Your task to perform on an android device: Open location settings Image 0: 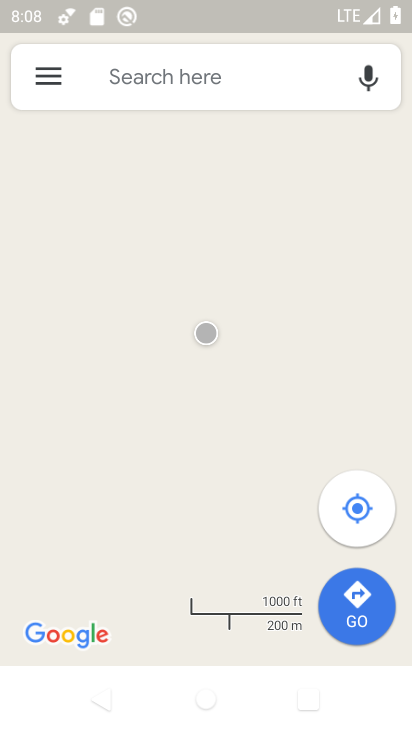
Step 0: press home button
Your task to perform on an android device: Open location settings Image 1: 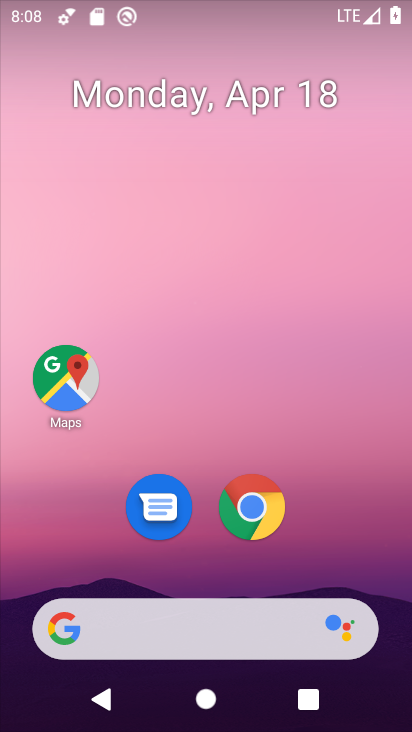
Step 1: drag from (15, 533) to (249, 83)
Your task to perform on an android device: Open location settings Image 2: 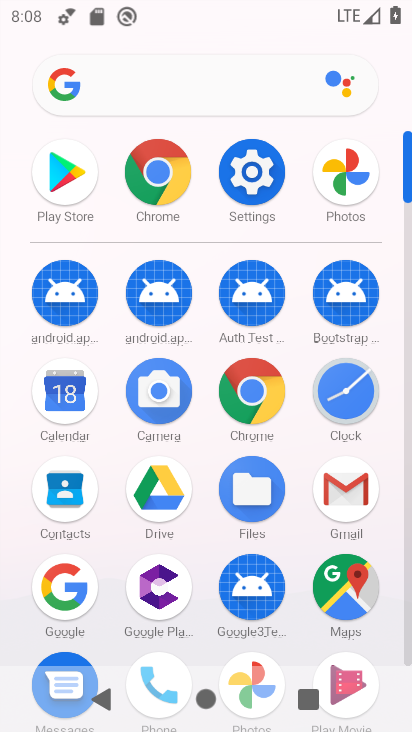
Step 2: click (251, 180)
Your task to perform on an android device: Open location settings Image 3: 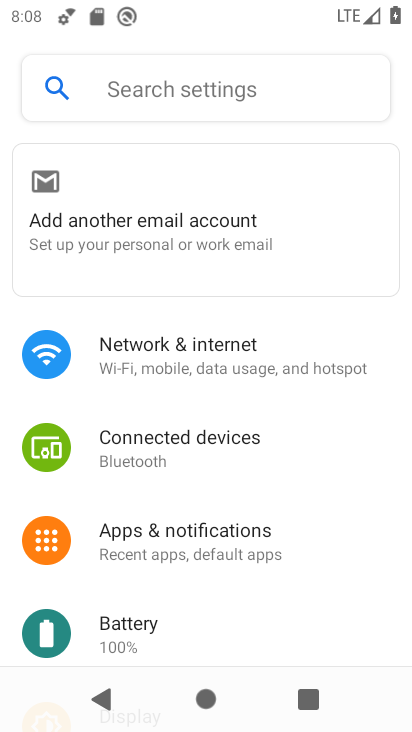
Step 3: drag from (165, 594) to (274, 128)
Your task to perform on an android device: Open location settings Image 4: 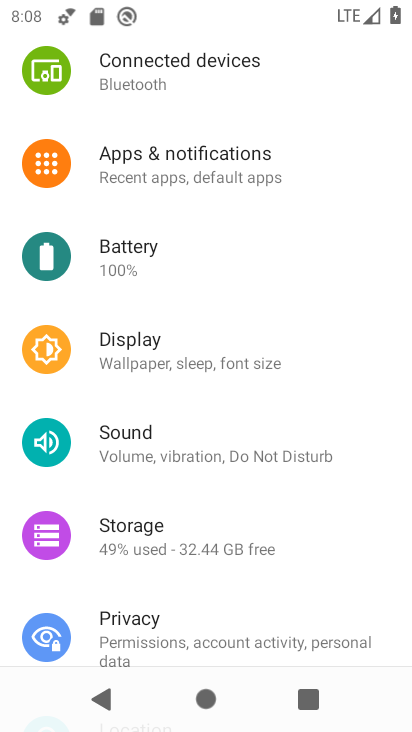
Step 4: drag from (143, 534) to (259, 104)
Your task to perform on an android device: Open location settings Image 5: 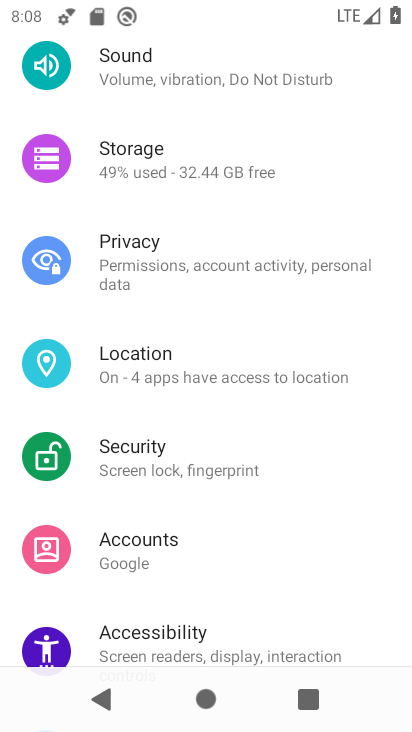
Step 5: click (190, 350)
Your task to perform on an android device: Open location settings Image 6: 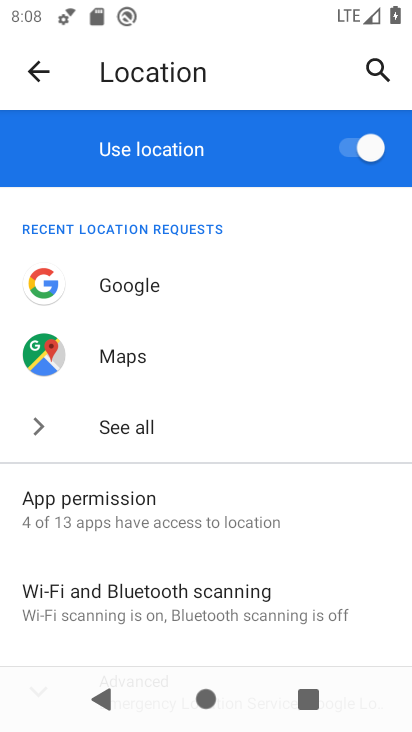
Step 6: task complete